Your task to perform on an android device: Go to eBay Image 0: 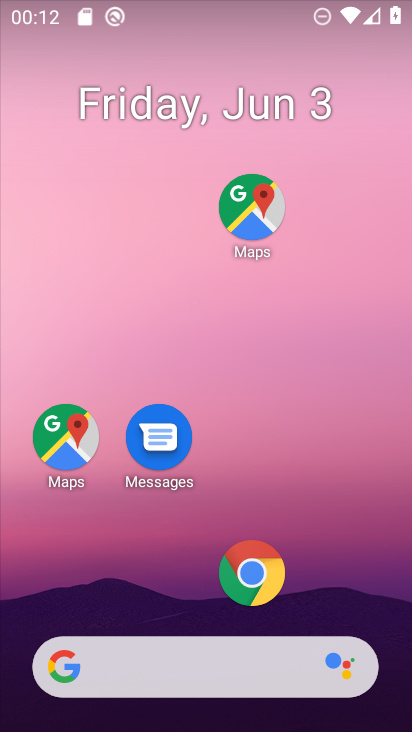
Step 0: click (253, 581)
Your task to perform on an android device: Go to eBay Image 1: 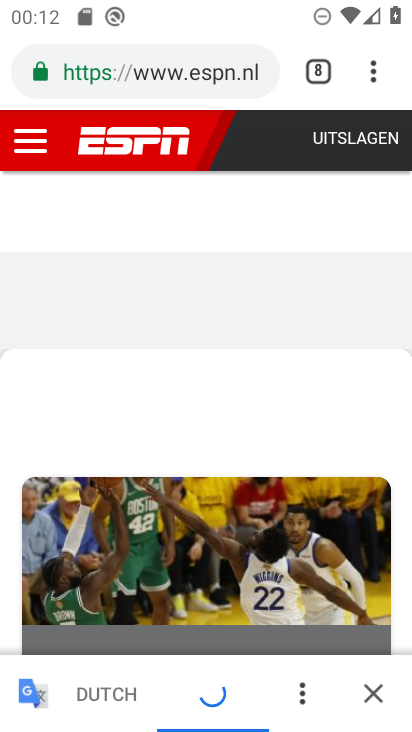
Step 1: click (323, 69)
Your task to perform on an android device: Go to eBay Image 2: 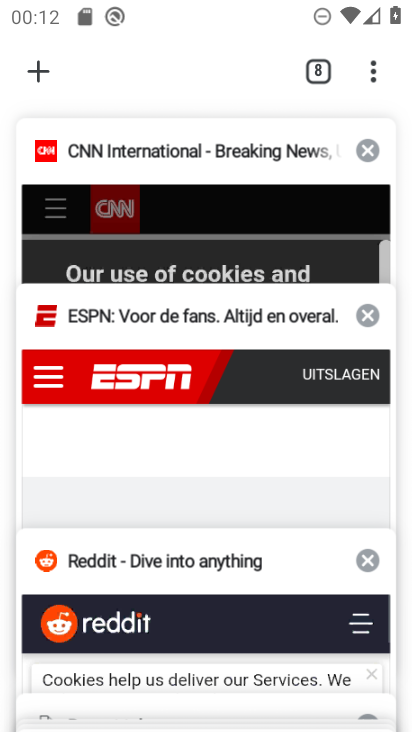
Step 2: drag from (228, 560) to (244, 217)
Your task to perform on an android device: Go to eBay Image 3: 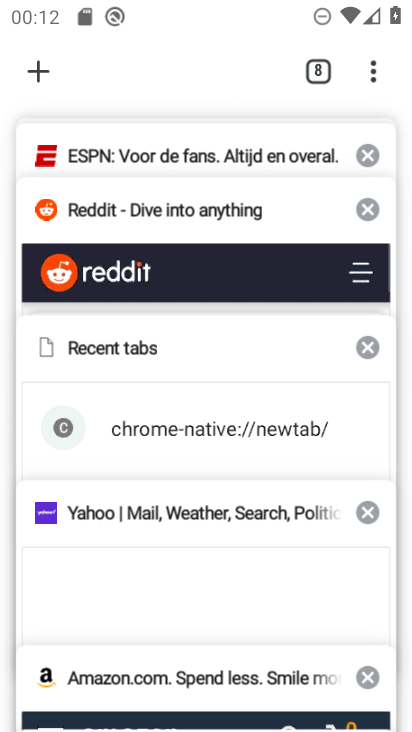
Step 3: drag from (205, 622) to (215, 207)
Your task to perform on an android device: Go to eBay Image 4: 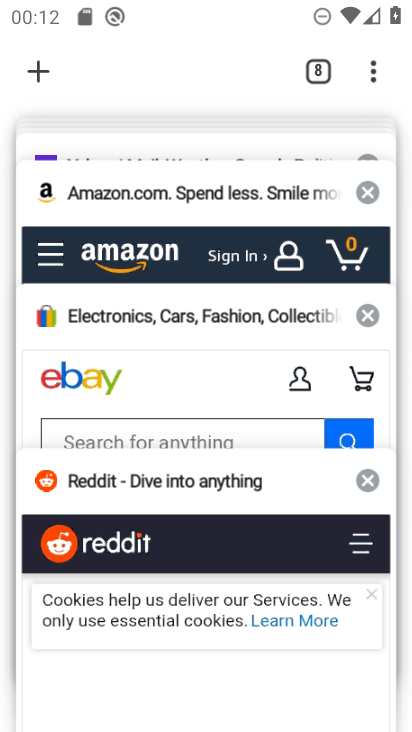
Step 4: click (185, 347)
Your task to perform on an android device: Go to eBay Image 5: 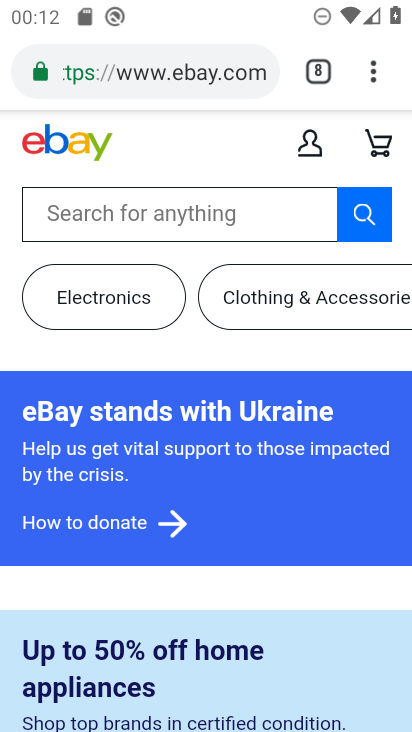
Step 5: task complete